Your task to perform on an android device: turn on improve location accuracy Image 0: 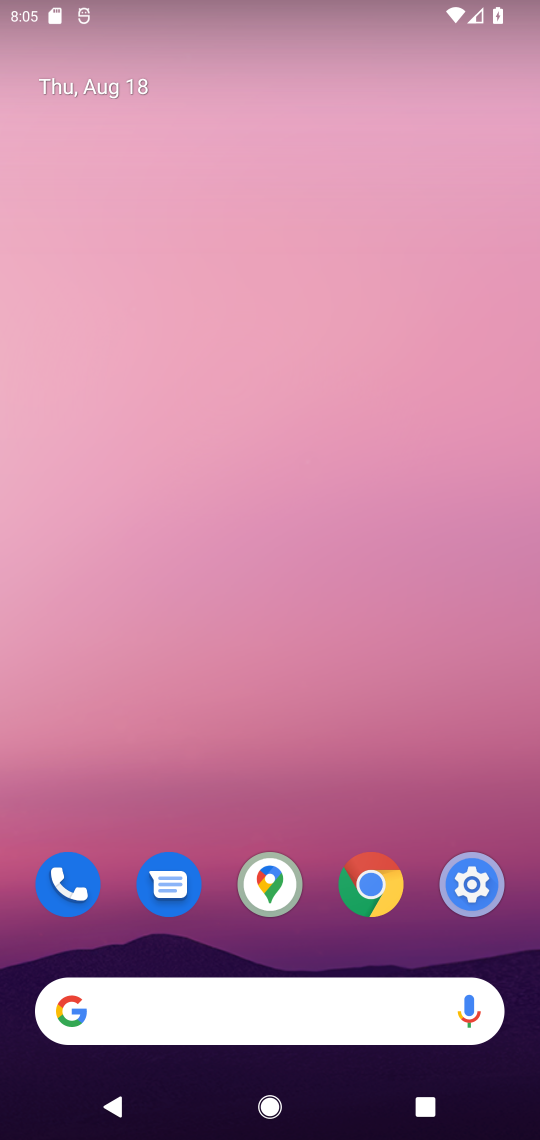
Step 0: click (473, 878)
Your task to perform on an android device: turn on improve location accuracy Image 1: 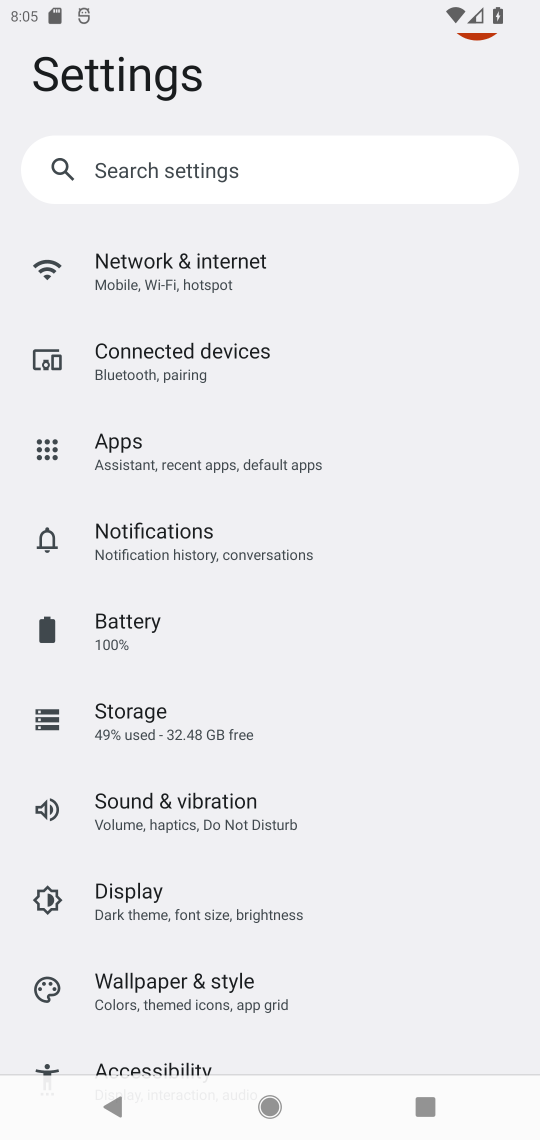
Step 1: drag from (109, 1002) to (261, 214)
Your task to perform on an android device: turn on improve location accuracy Image 2: 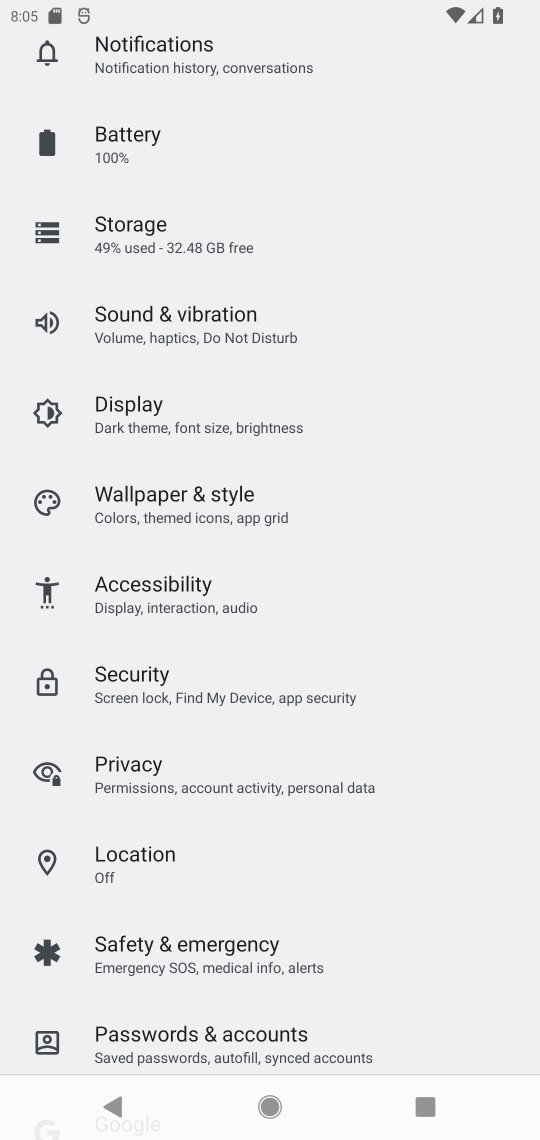
Step 2: click (180, 887)
Your task to perform on an android device: turn on improve location accuracy Image 3: 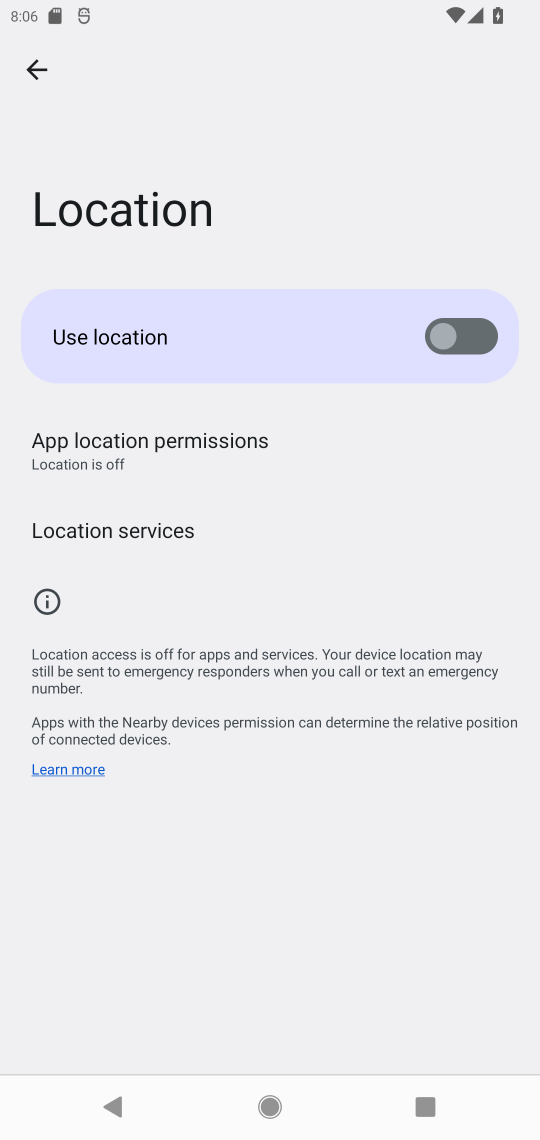
Step 3: click (185, 445)
Your task to perform on an android device: turn on improve location accuracy Image 4: 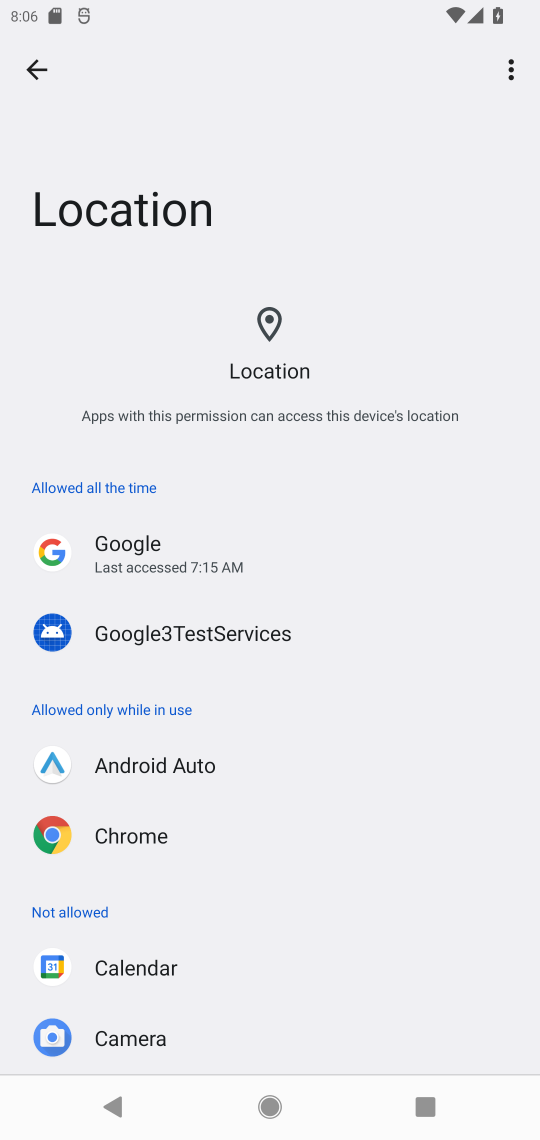
Step 4: task complete